Your task to perform on an android device: Toggle the flashlight Image 0: 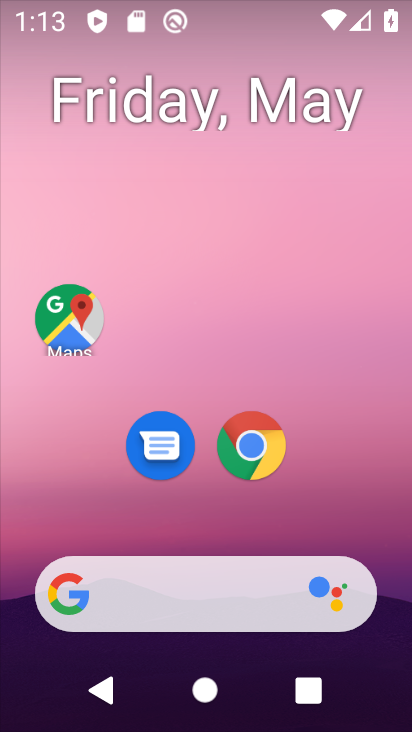
Step 0: drag from (246, 27) to (256, 410)
Your task to perform on an android device: Toggle the flashlight Image 1: 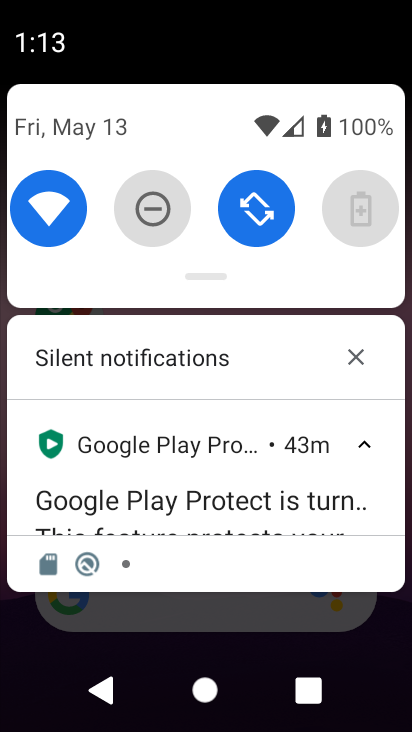
Step 1: drag from (205, 259) to (215, 506)
Your task to perform on an android device: Toggle the flashlight Image 2: 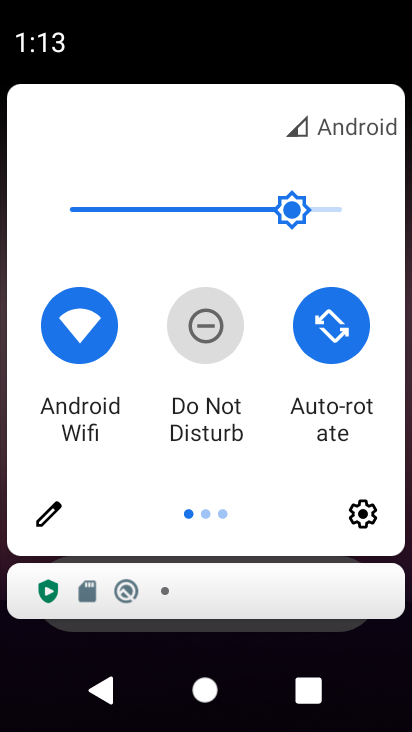
Step 2: click (44, 514)
Your task to perform on an android device: Toggle the flashlight Image 3: 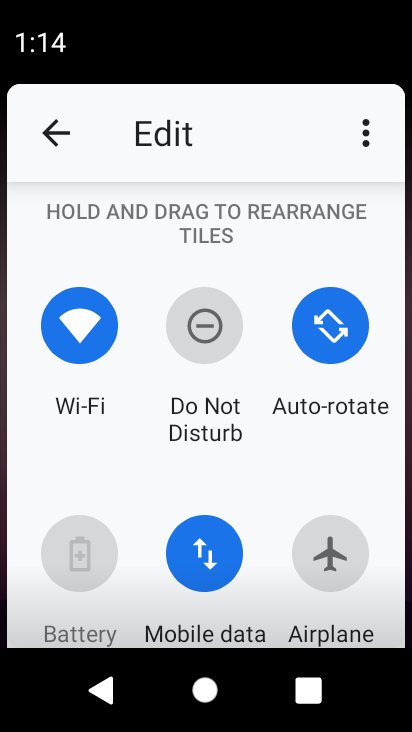
Step 3: task complete